Your task to perform on an android device: Do I have any events tomorrow? Image 0: 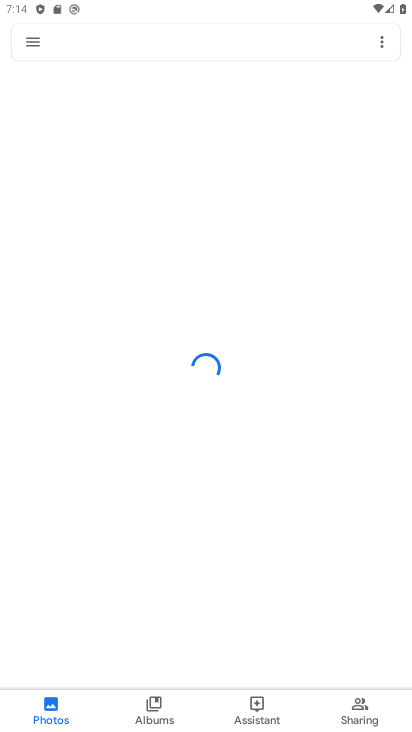
Step 0: press home button
Your task to perform on an android device: Do I have any events tomorrow? Image 1: 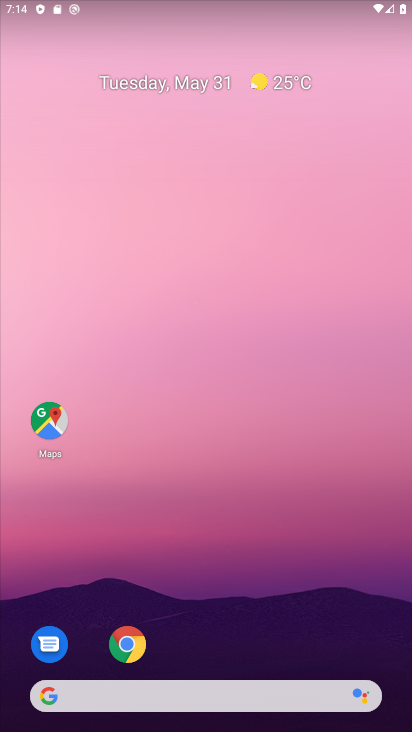
Step 1: drag from (165, 712) to (194, 140)
Your task to perform on an android device: Do I have any events tomorrow? Image 2: 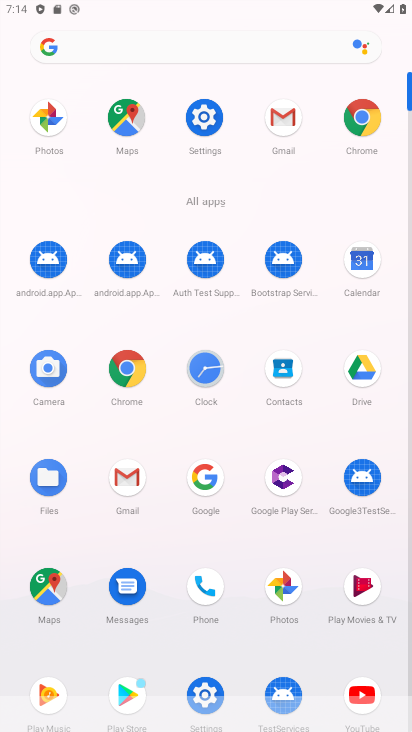
Step 2: click (362, 262)
Your task to perform on an android device: Do I have any events tomorrow? Image 3: 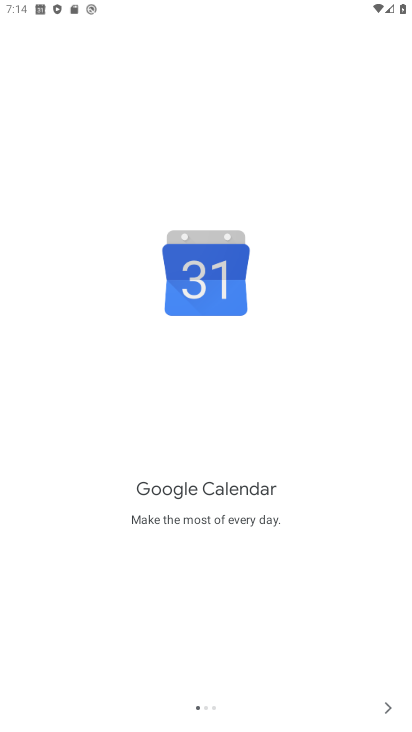
Step 3: click (390, 708)
Your task to perform on an android device: Do I have any events tomorrow? Image 4: 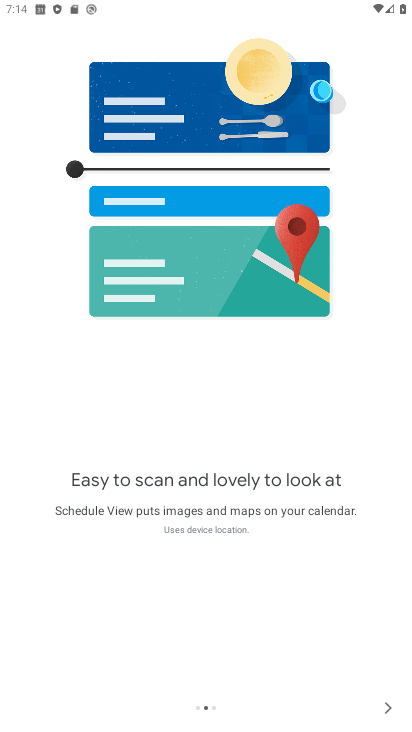
Step 4: click (395, 712)
Your task to perform on an android device: Do I have any events tomorrow? Image 5: 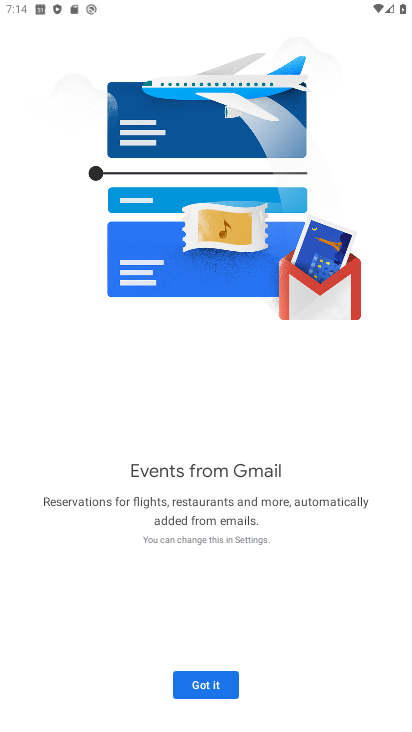
Step 5: click (200, 686)
Your task to perform on an android device: Do I have any events tomorrow? Image 6: 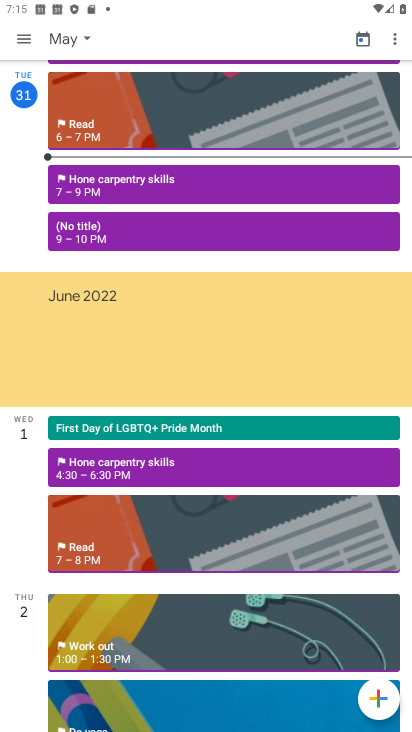
Step 6: task complete